Your task to perform on an android device: open the mobile data screen to see how much data has been used Image 0: 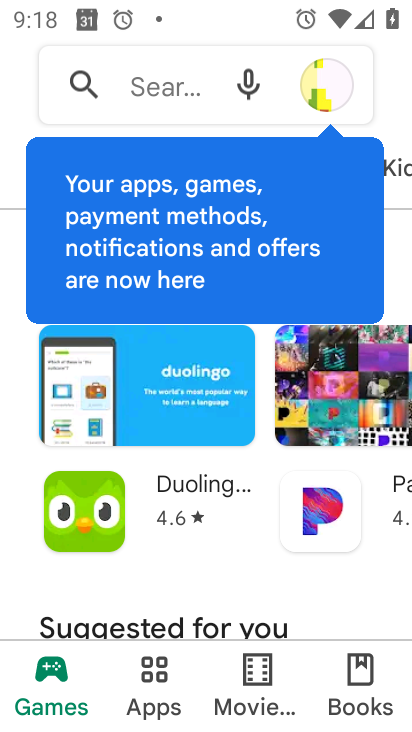
Step 0: press back button
Your task to perform on an android device: open the mobile data screen to see how much data has been used Image 1: 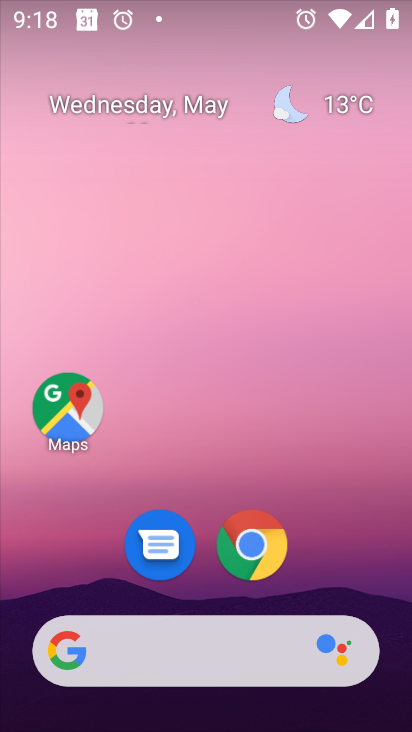
Step 1: drag from (330, 505) to (246, 31)
Your task to perform on an android device: open the mobile data screen to see how much data has been used Image 2: 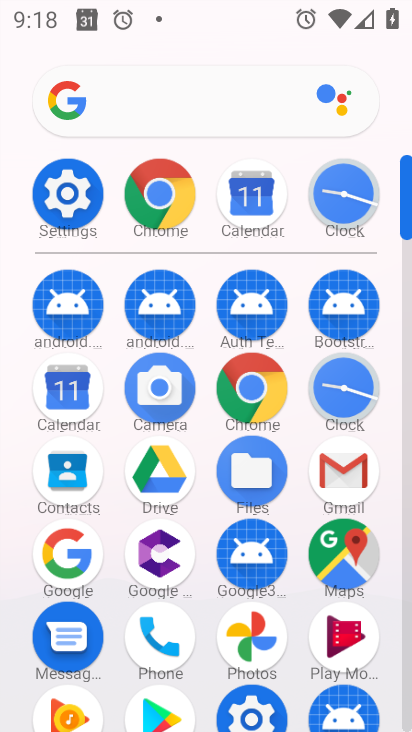
Step 2: click (68, 191)
Your task to perform on an android device: open the mobile data screen to see how much data has been used Image 3: 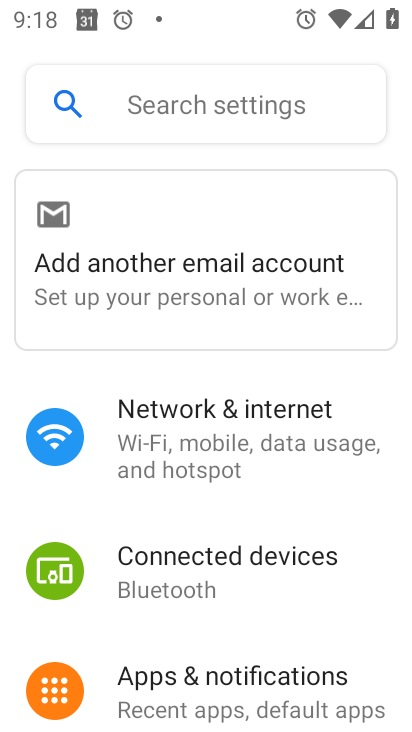
Step 3: click (194, 447)
Your task to perform on an android device: open the mobile data screen to see how much data has been used Image 4: 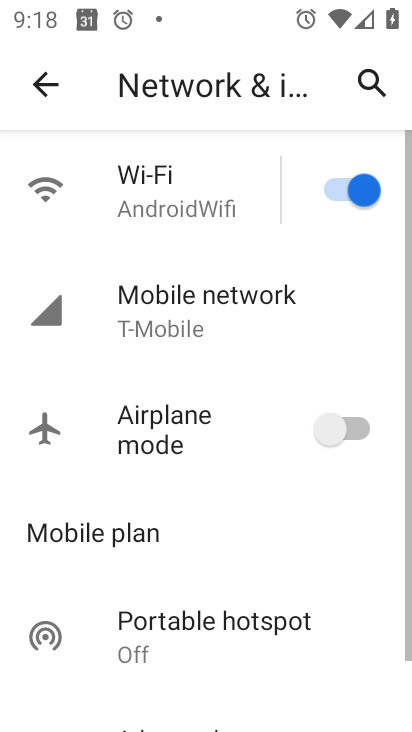
Step 4: click (203, 310)
Your task to perform on an android device: open the mobile data screen to see how much data has been used Image 5: 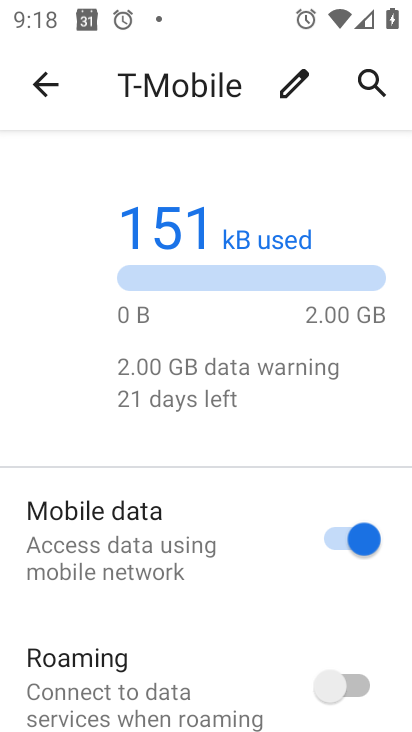
Step 5: task complete